Your task to perform on an android device: turn off wifi Image 0: 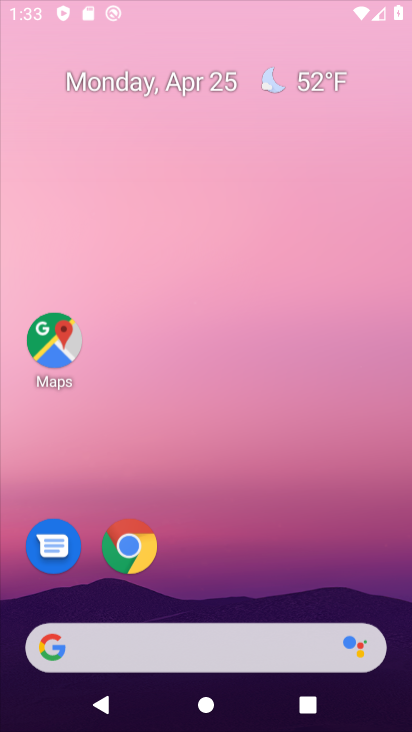
Step 0: drag from (215, 630) to (97, 53)
Your task to perform on an android device: turn off wifi Image 1: 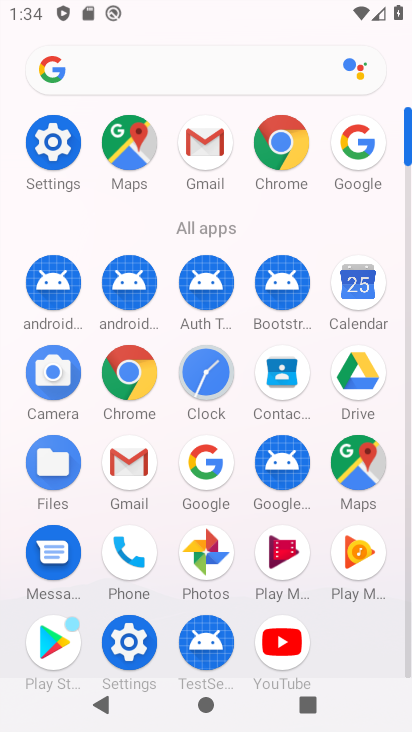
Step 1: click (46, 147)
Your task to perform on an android device: turn off wifi Image 2: 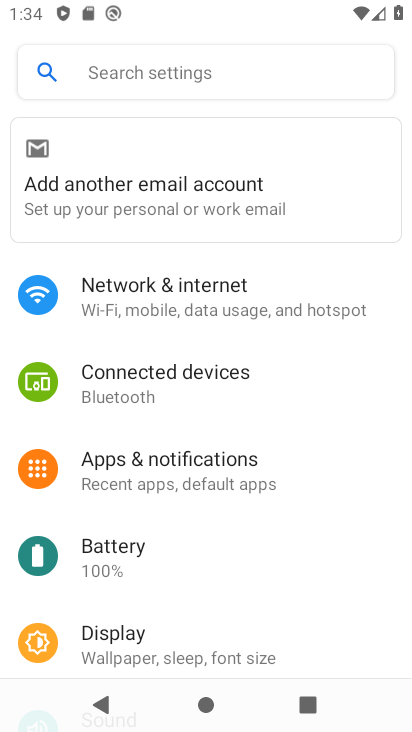
Step 2: click (112, 293)
Your task to perform on an android device: turn off wifi Image 3: 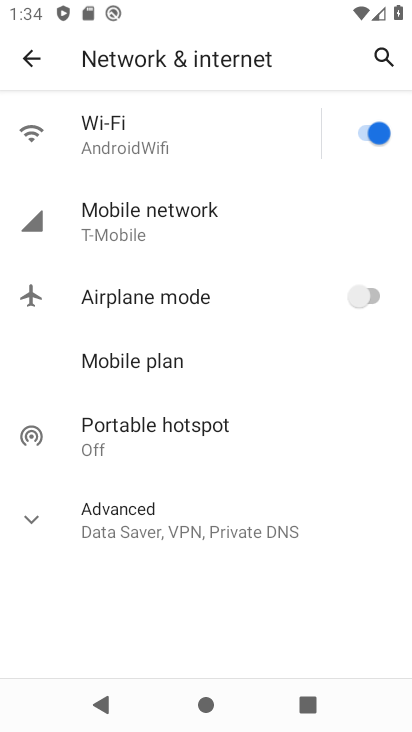
Step 3: click (372, 134)
Your task to perform on an android device: turn off wifi Image 4: 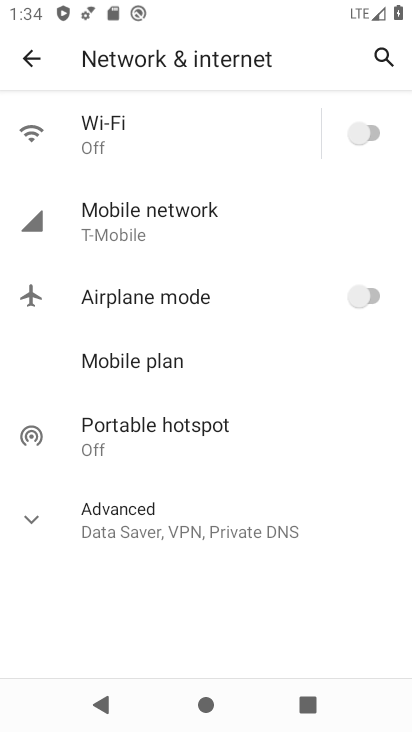
Step 4: task complete